Your task to perform on an android device: open sync settings in chrome Image 0: 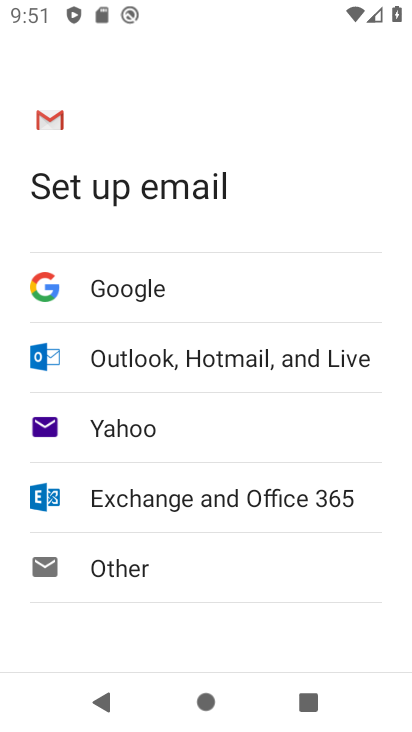
Step 0: press home button
Your task to perform on an android device: open sync settings in chrome Image 1: 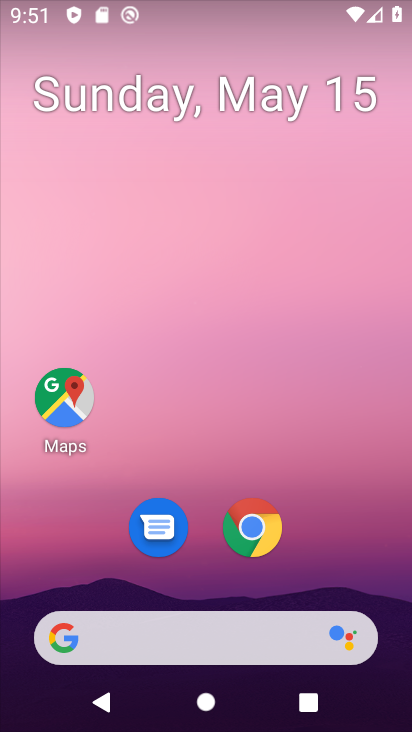
Step 1: click (264, 535)
Your task to perform on an android device: open sync settings in chrome Image 2: 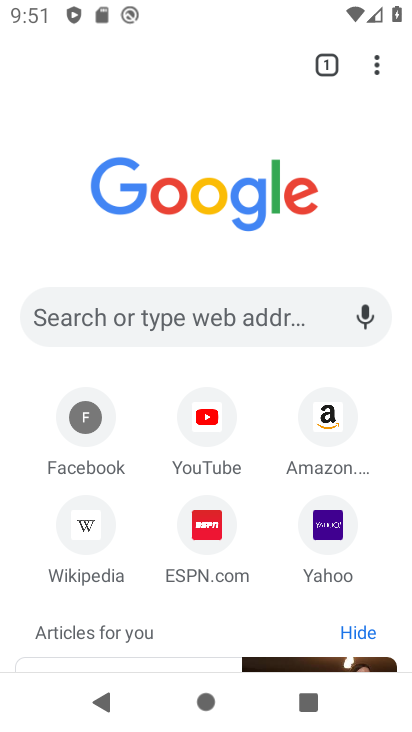
Step 2: drag from (378, 76) to (220, 558)
Your task to perform on an android device: open sync settings in chrome Image 3: 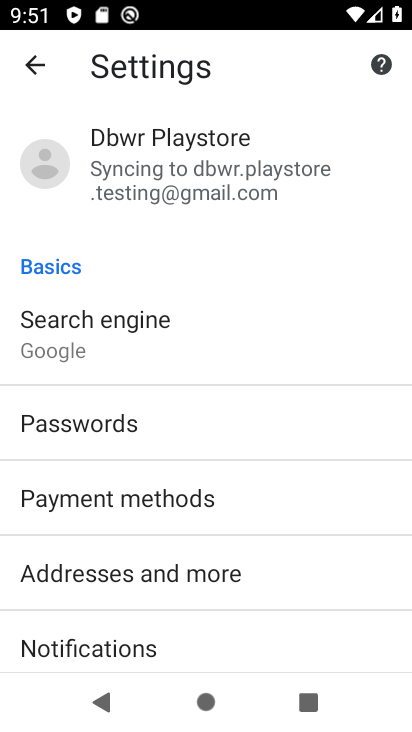
Step 3: click (221, 209)
Your task to perform on an android device: open sync settings in chrome Image 4: 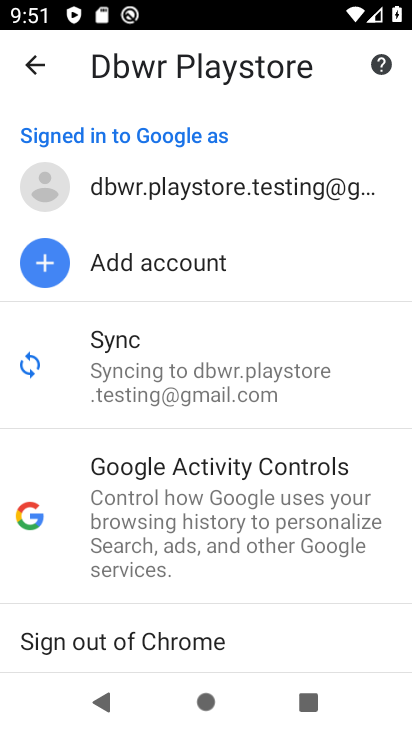
Step 4: click (213, 360)
Your task to perform on an android device: open sync settings in chrome Image 5: 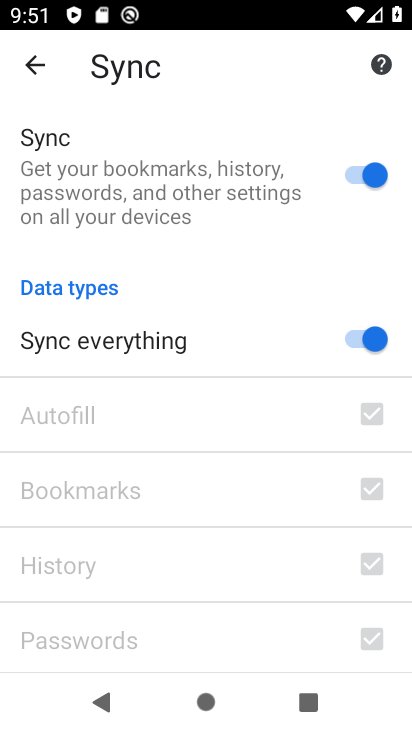
Step 5: task complete